Your task to perform on an android device: toggle sleep mode Image 0: 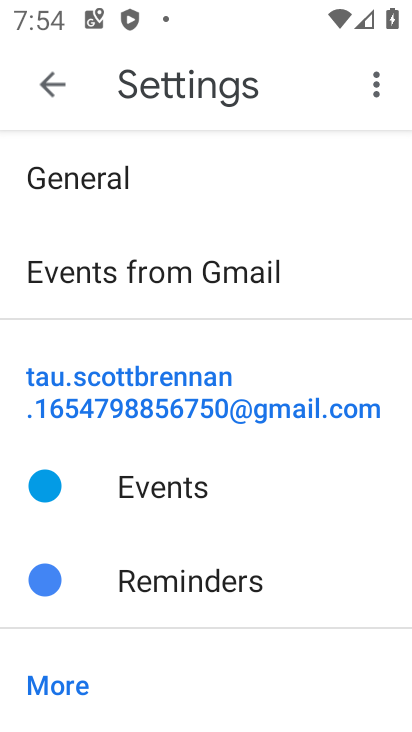
Step 0: press home button
Your task to perform on an android device: toggle sleep mode Image 1: 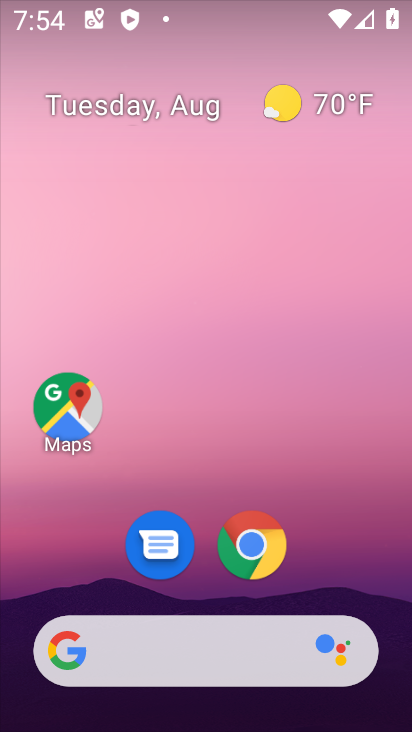
Step 1: drag from (297, 612) to (343, 179)
Your task to perform on an android device: toggle sleep mode Image 2: 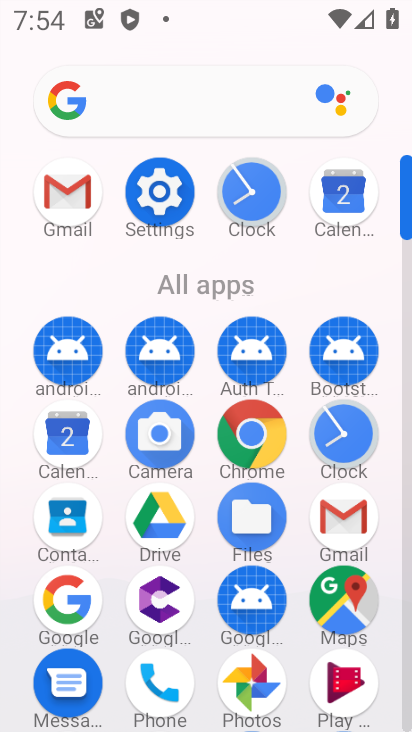
Step 2: drag from (287, 499) to (337, 131)
Your task to perform on an android device: toggle sleep mode Image 3: 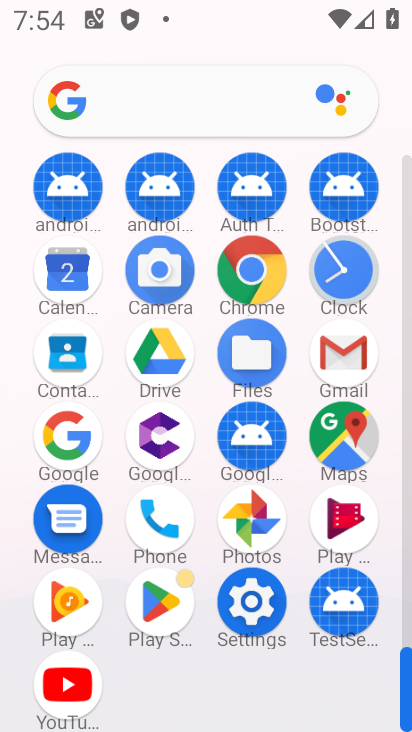
Step 3: click (247, 615)
Your task to perform on an android device: toggle sleep mode Image 4: 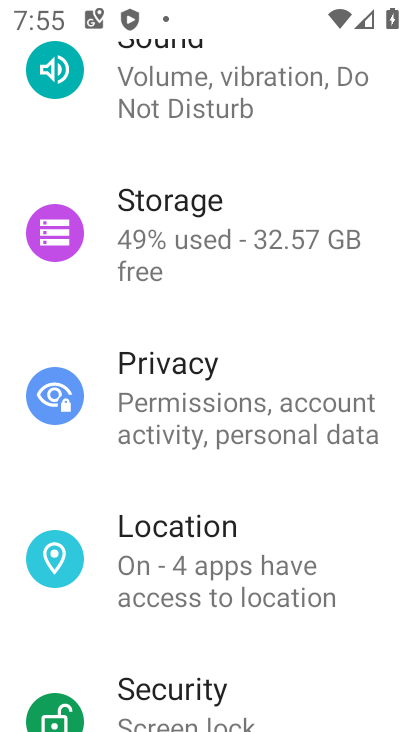
Step 4: drag from (272, 528) to (256, 304)
Your task to perform on an android device: toggle sleep mode Image 5: 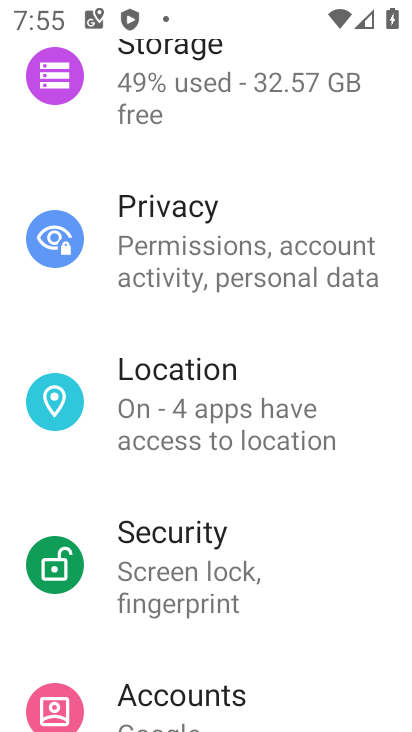
Step 5: drag from (259, 376) to (237, 631)
Your task to perform on an android device: toggle sleep mode Image 6: 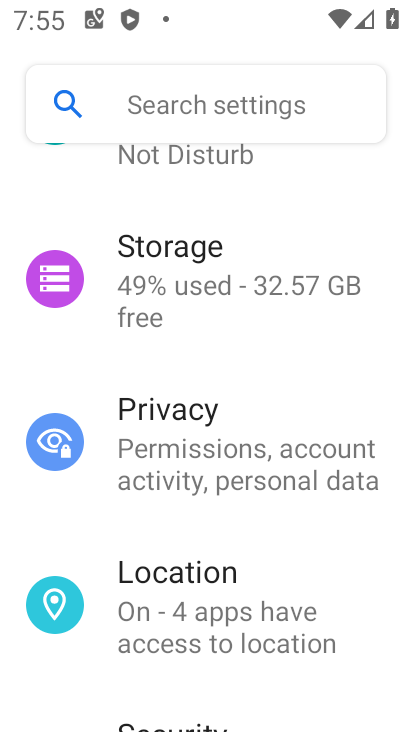
Step 6: drag from (260, 307) to (249, 696)
Your task to perform on an android device: toggle sleep mode Image 7: 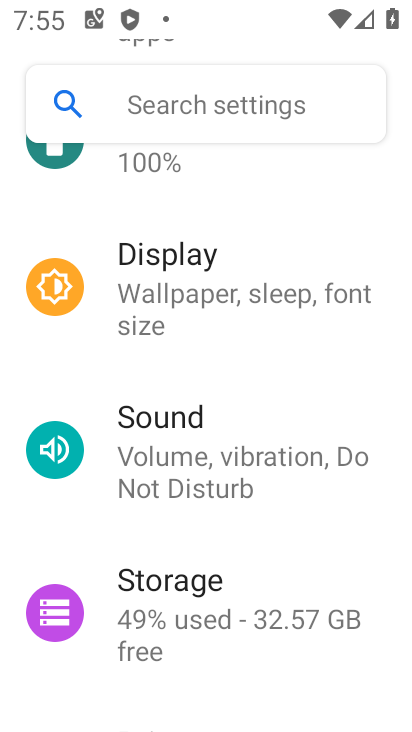
Step 7: drag from (246, 295) to (261, 402)
Your task to perform on an android device: toggle sleep mode Image 8: 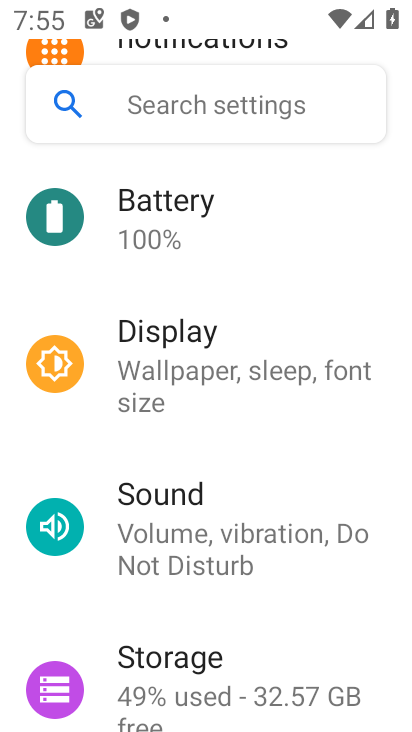
Step 8: click (229, 351)
Your task to perform on an android device: toggle sleep mode Image 9: 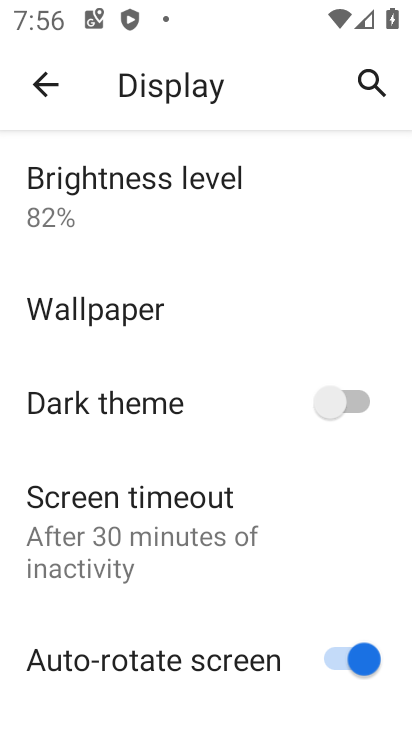
Step 9: drag from (188, 586) to (193, 17)
Your task to perform on an android device: toggle sleep mode Image 10: 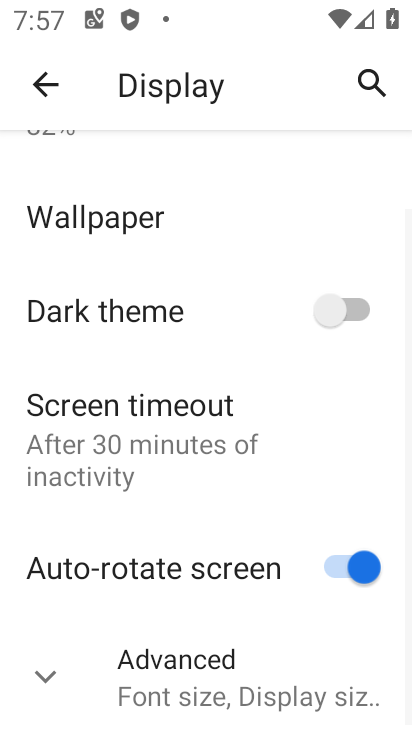
Step 10: click (146, 706)
Your task to perform on an android device: toggle sleep mode Image 11: 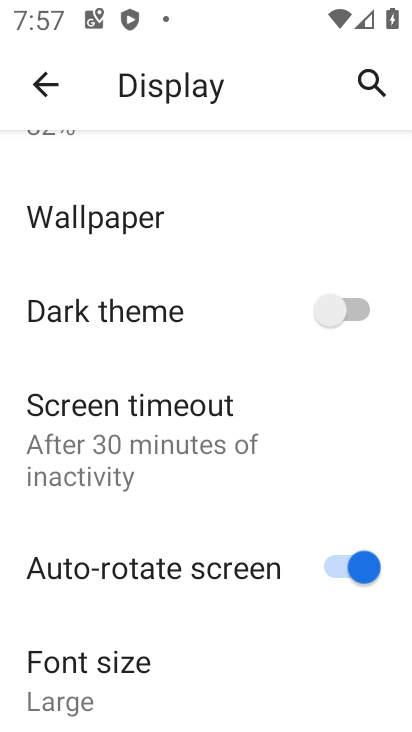
Step 11: task complete